Your task to perform on an android device: change the clock display to analog Image 0: 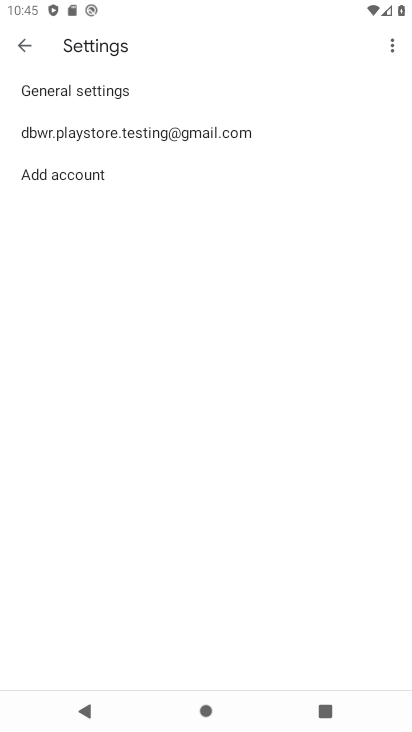
Step 0: press home button
Your task to perform on an android device: change the clock display to analog Image 1: 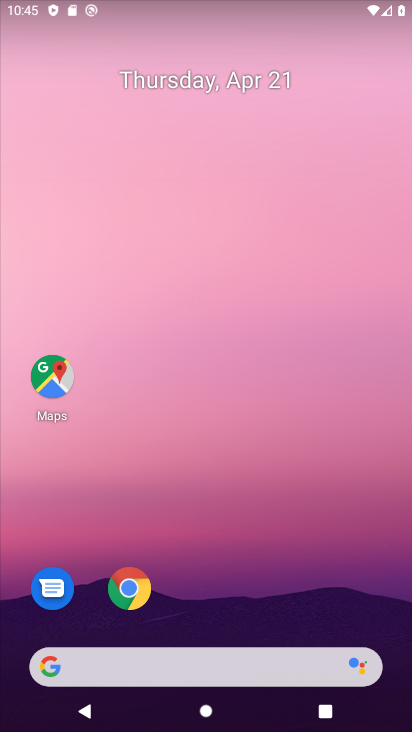
Step 1: drag from (218, 564) to (218, 113)
Your task to perform on an android device: change the clock display to analog Image 2: 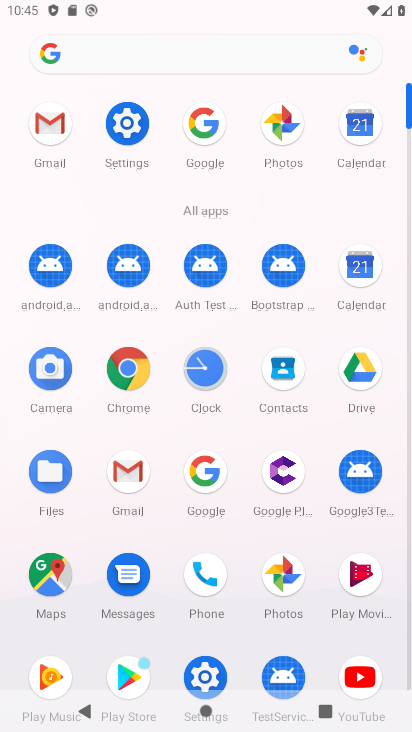
Step 2: drag from (241, 579) to (245, 404)
Your task to perform on an android device: change the clock display to analog Image 3: 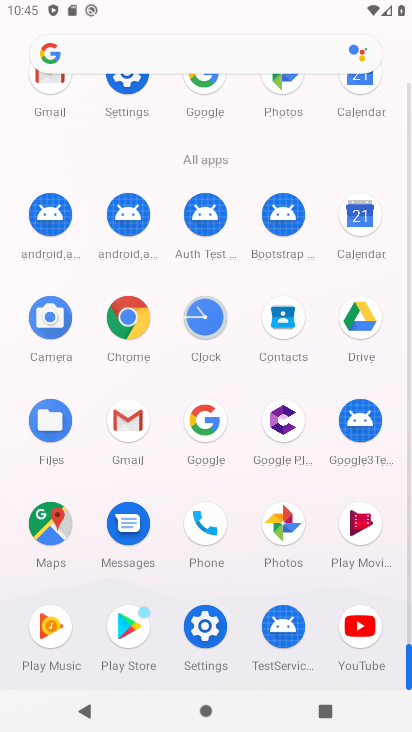
Step 3: click (213, 317)
Your task to perform on an android device: change the clock display to analog Image 4: 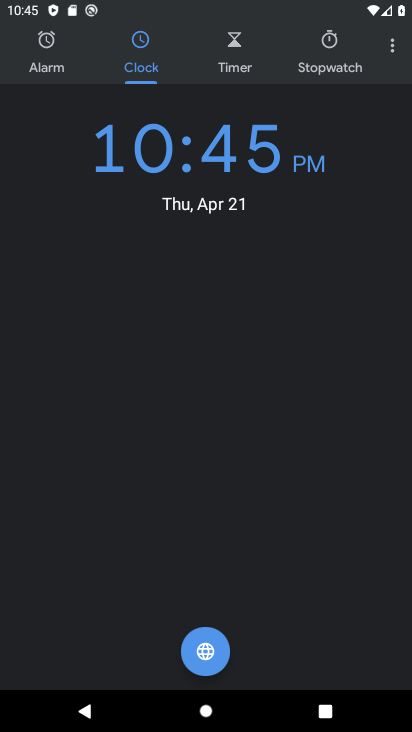
Step 4: click (389, 42)
Your task to perform on an android device: change the clock display to analog Image 5: 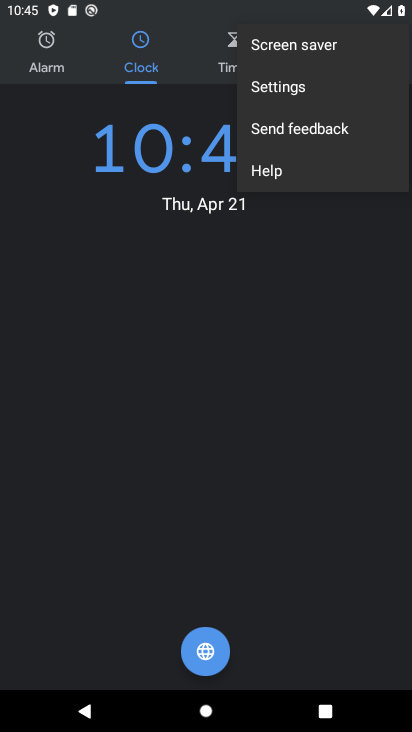
Step 5: click (284, 94)
Your task to perform on an android device: change the clock display to analog Image 6: 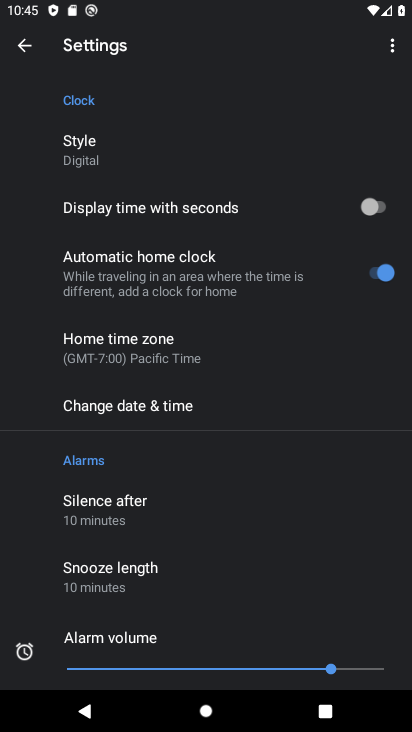
Step 6: click (120, 151)
Your task to perform on an android device: change the clock display to analog Image 7: 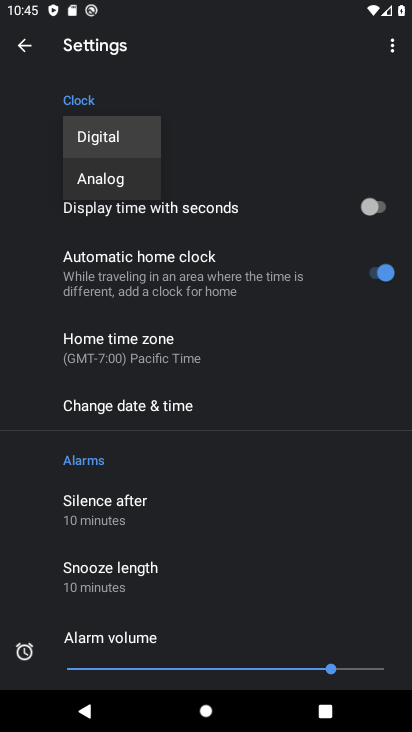
Step 7: click (124, 179)
Your task to perform on an android device: change the clock display to analog Image 8: 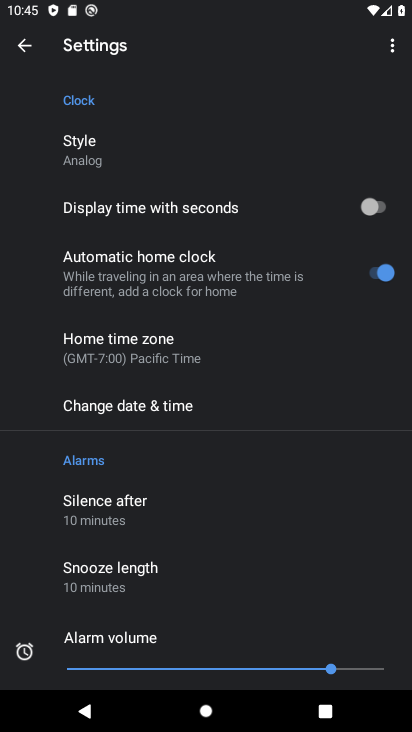
Step 8: task complete